Your task to perform on an android device: turn on airplane mode Image 0: 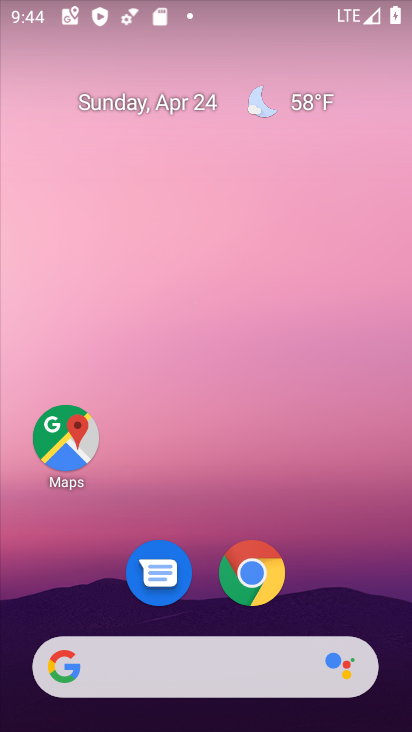
Step 0: drag from (302, 1) to (308, 439)
Your task to perform on an android device: turn on airplane mode Image 1: 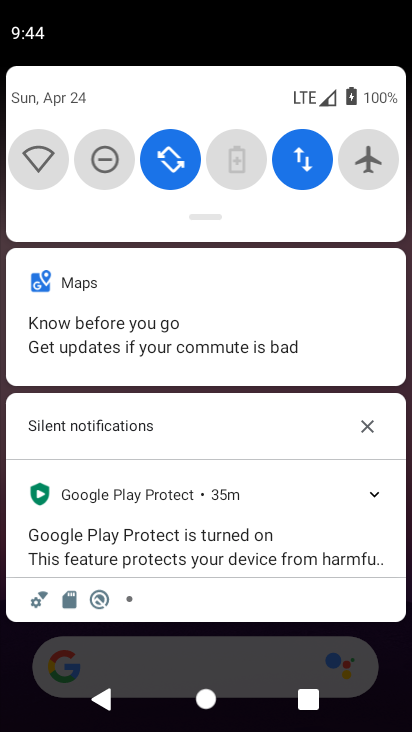
Step 1: click (370, 160)
Your task to perform on an android device: turn on airplane mode Image 2: 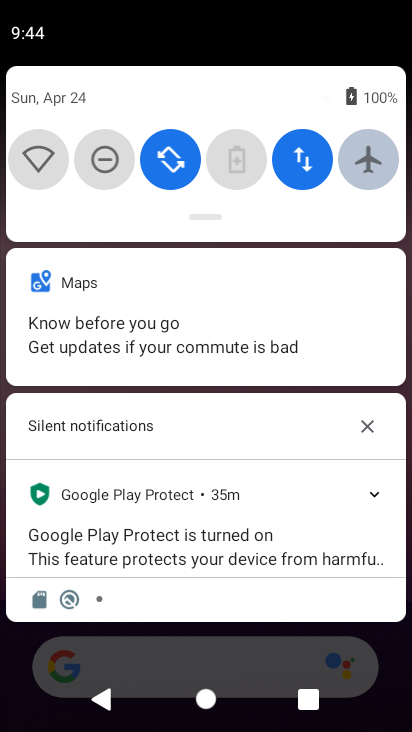
Step 2: task complete